Your task to perform on an android device: add a label to a message in the gmail app Image 0: 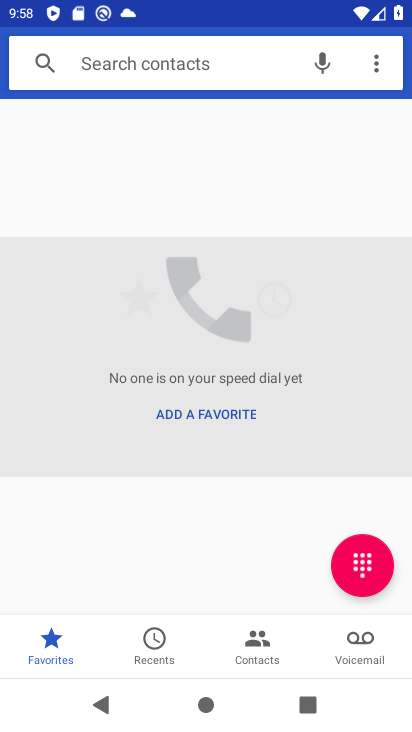
Step 0: press home button
Your task to perform on an android device: add a label to a message in the gmail app Image 1: 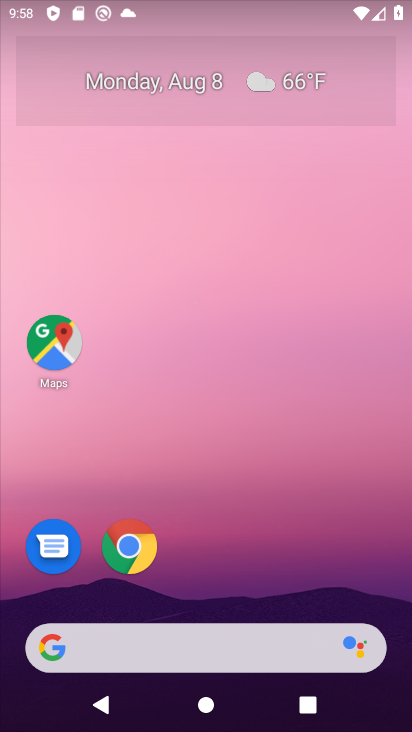
Step 1: drag from (254, 556) to (349, 187)
Your task to perform on an android device: add a label to a message in the gmail app Image 2: 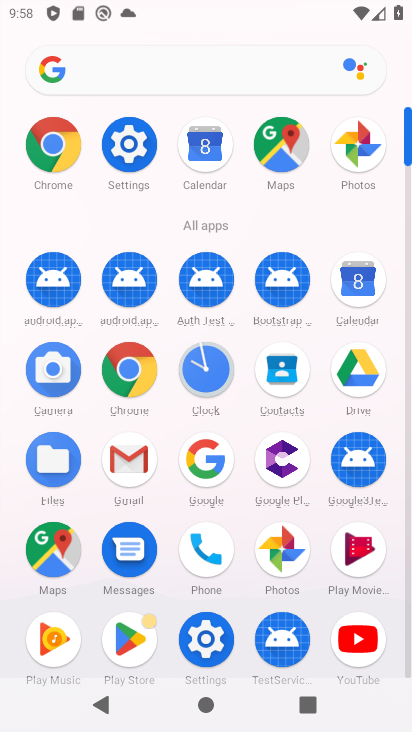
Step 2: click (127, 469)
Your task to perform on an android device: add a label to a message in the gmail app Image 3: 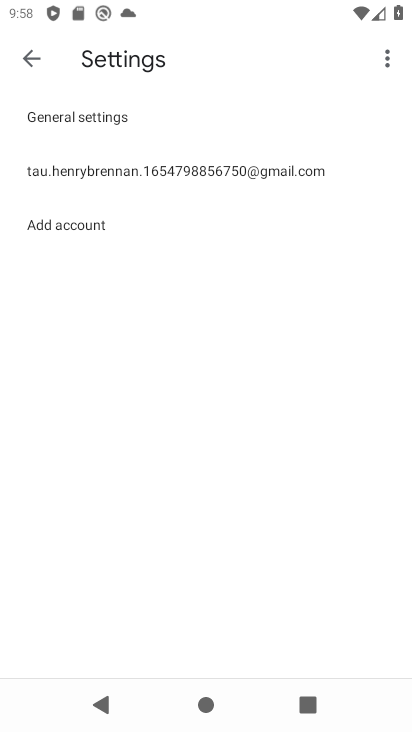
Step 3: click (31, 53)
Your task to perform on an android device: add a label to a message in the gmail app Image 4: 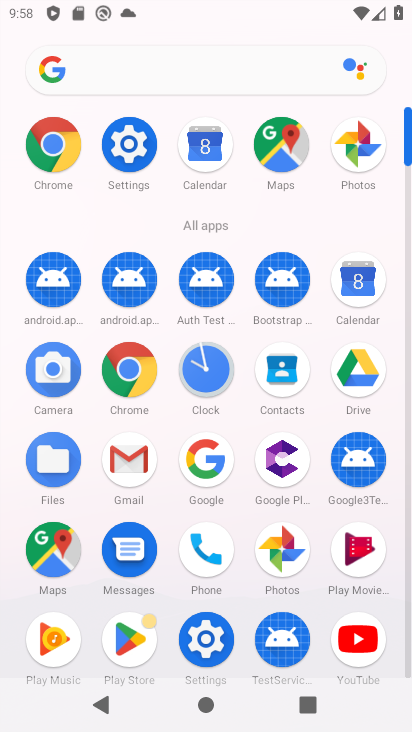
Step 4: click (125, 470)
Your task to perform on an android device: add a label to a message in the gmail app Image 5: 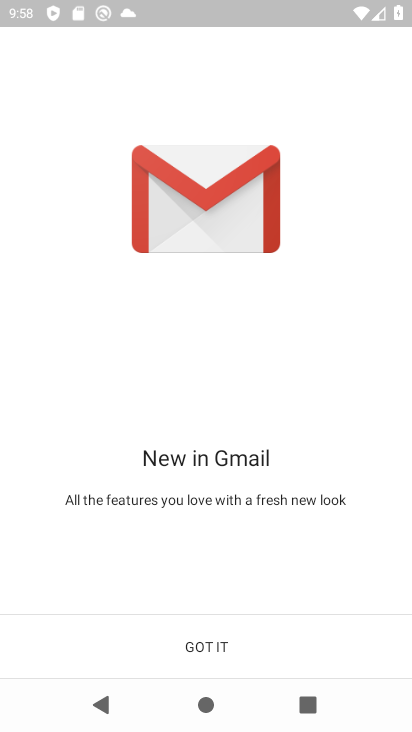
Step 5: click (203, 640)
Your task to perform on an android device: add a label to a message in the gmail app Image 6: 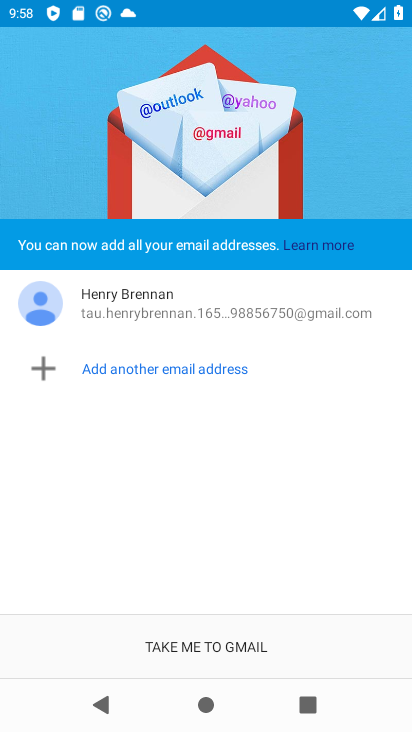
Step 6: click (203, 638)
Your task to perform on an android device: add a label to a message in the gmail app Image 7: 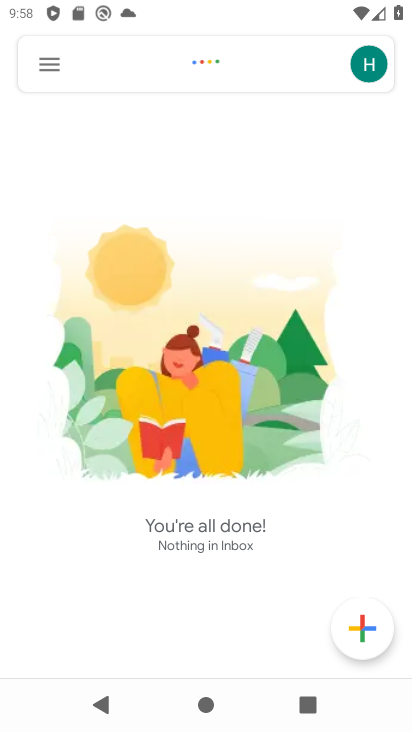
Step 7: task complete